Your task to perform on an android device: change text size in settings app Image 0: 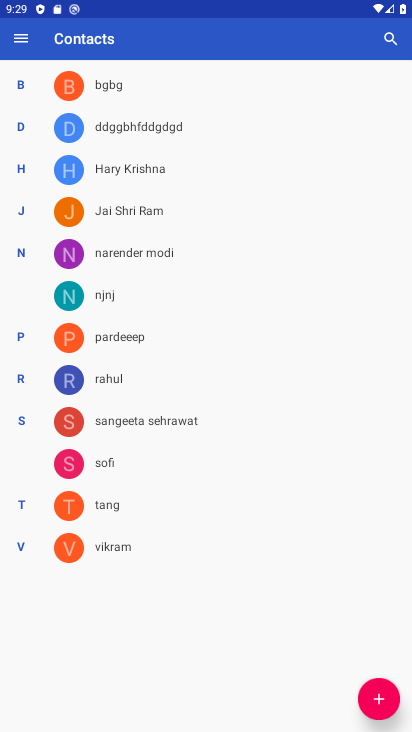
Step 0: press home button
Your task to perform on an android device: change text size in settings app Image 1: 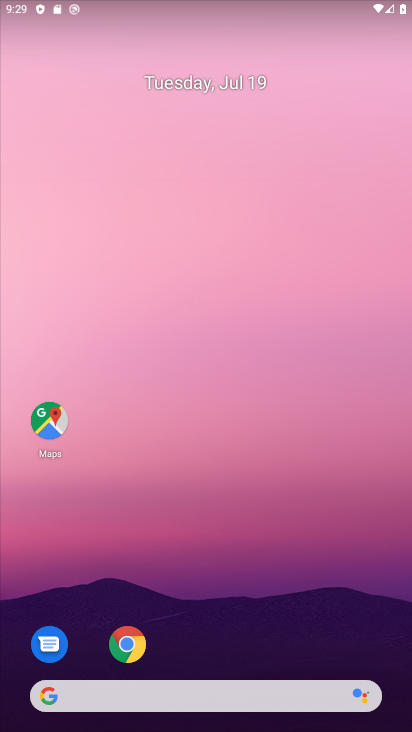
Step 1: drag from (243, 521) to (261, 229)
Your task to perform on an android device: change text size in settings app Image 2: 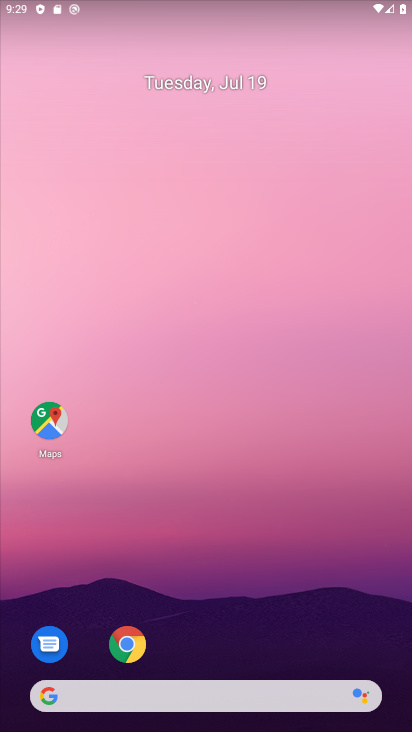
Step 2: drag from (256, 603) to (291, 193)
Your task to perform on an android device: change text size in settings app Image 3: 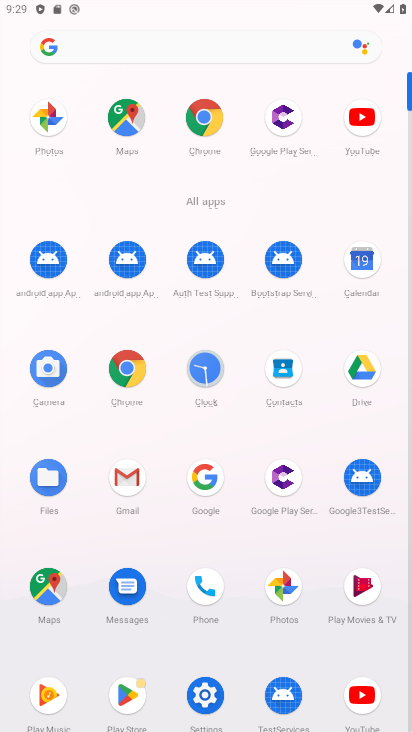
Step 3: click (206, 689)
Your task to perform on an android device: change text size in settings app Image 4: 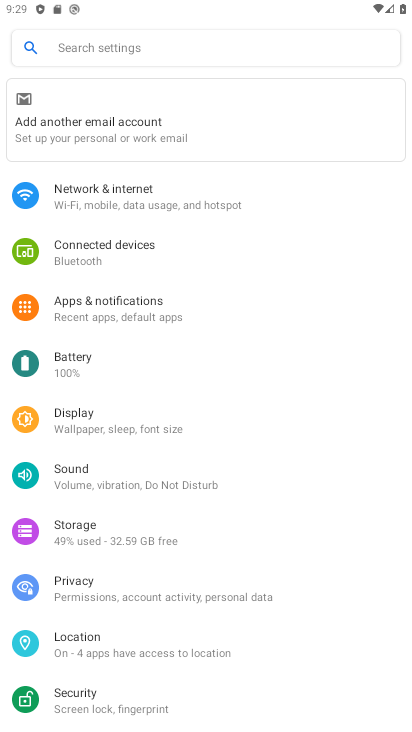
Step 4: click (82, 424)
Your task to perform on an android device: change text size in settings app Image 5: 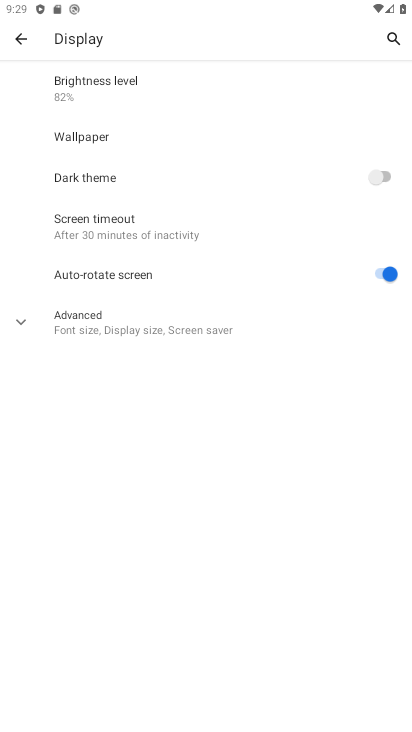
Step 5: click (121, 321)
Your task to perform on an android device: change text size in settings app Image 6: 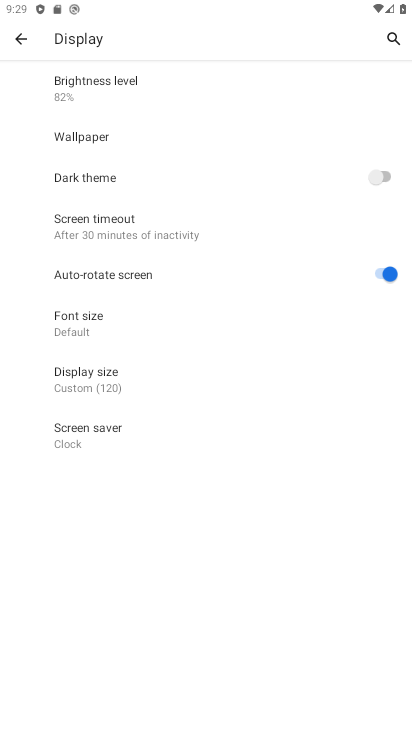
Step 6: click (74, 320)
Your task to perform on an android device: change text size in settings app Image 7: 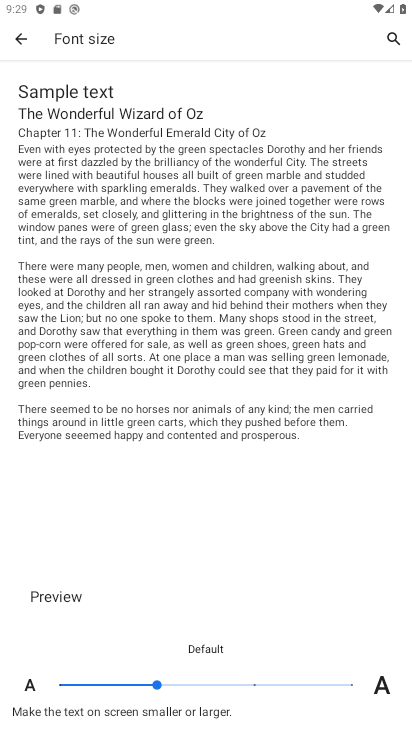
Step 7: click (143, 680)
Your task to perform on an android device: change text size in settings app Image 8: 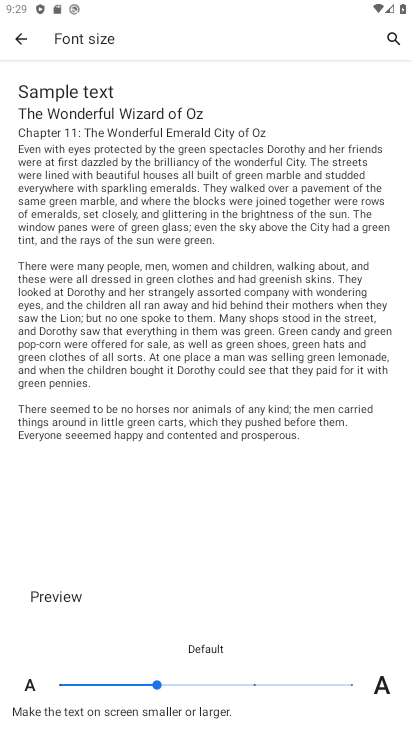
Step 8: click (143, 685)
Your task to perform on an android device: change text size in settings app Image 9: 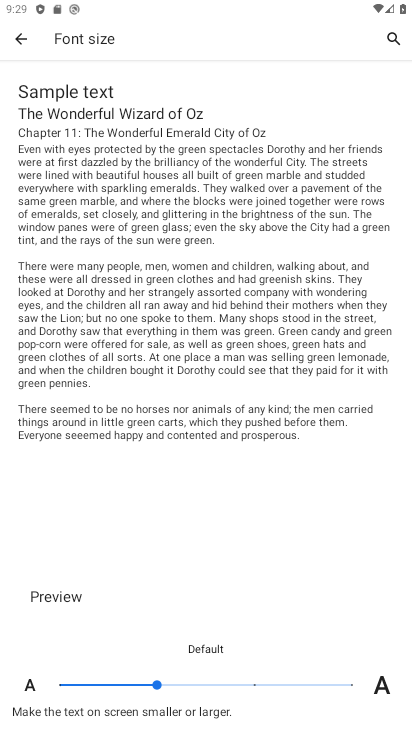
Step 9: task complete